Your task to perform on an android device: What's the weather going to be this weekend? Image 0: 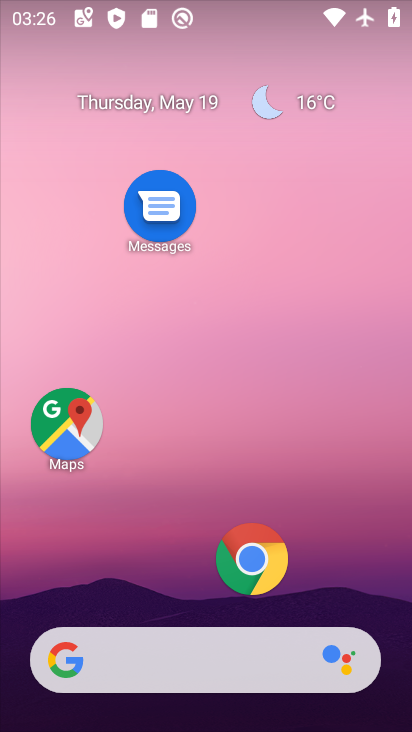
Step 0: drag from (185, 601) to (212, 258)
Your task to perform on an android device: What's the weather going to be this weekend? Image 1: 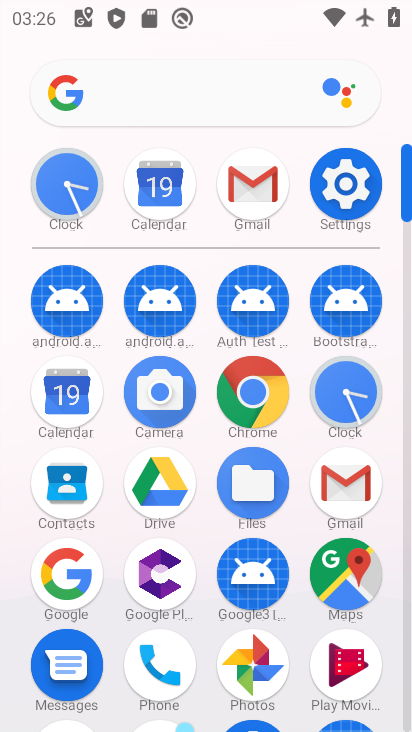
Step 1: click (161, 203)
Your task to perform on an android device: What's the weather going to be this weekend? Image 2: 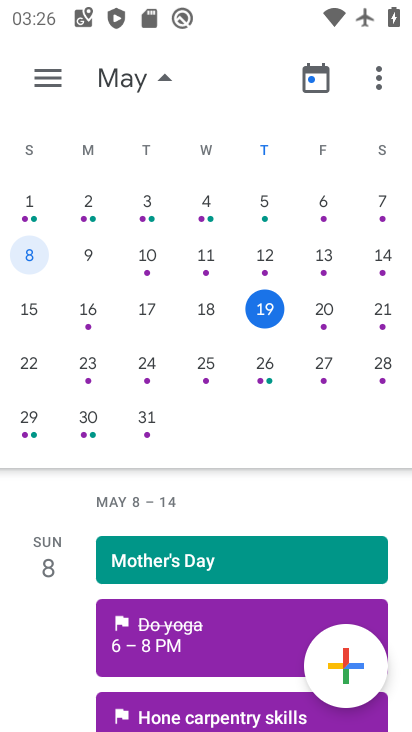
Step 2: click (382, 321)
Your task to perform on an android device: What's the weather going to be this weekend? Image 3: 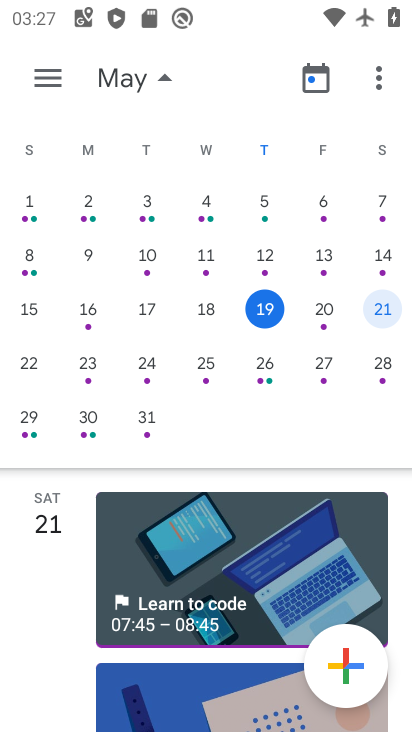
Step 3: task complete